Your task to perform on an android device: toggle javascript in the chrome app Image 0: 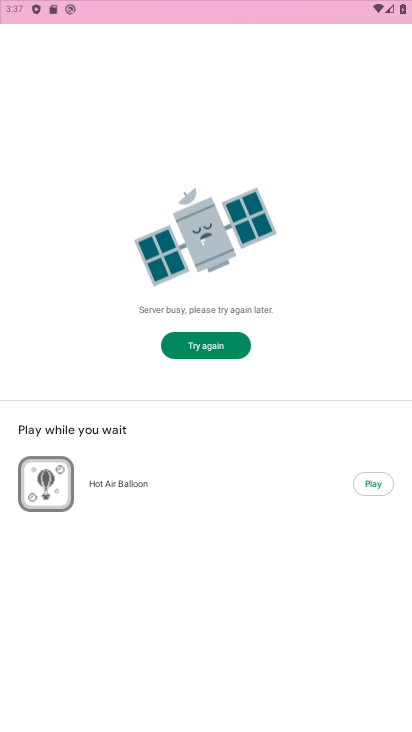
Step 0: click (346, 128)
Your task to perform on an android device: toggle javascript in the chrome app Image 1: 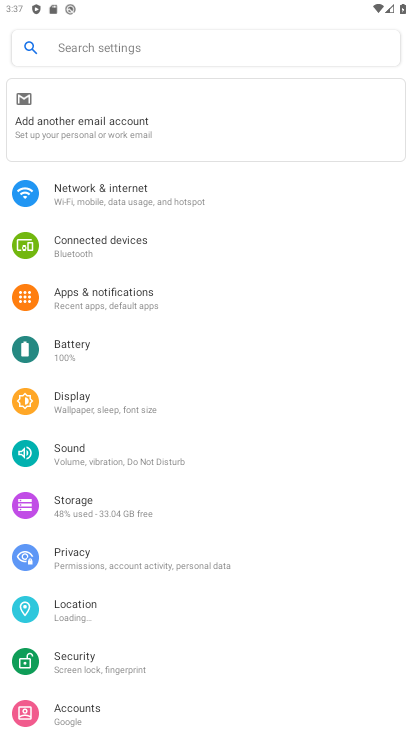
Step 1: press home button
Your task to perform on an android device: toggle javascript in the chrome app Image 2: 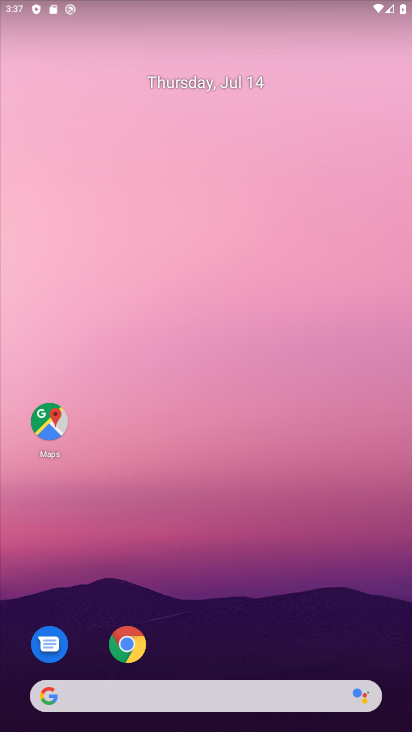
Step 2: drag from (295, 557) to (347, 71)
Your task to perform on an android device: toggle javascript in the chrome app Image 3: 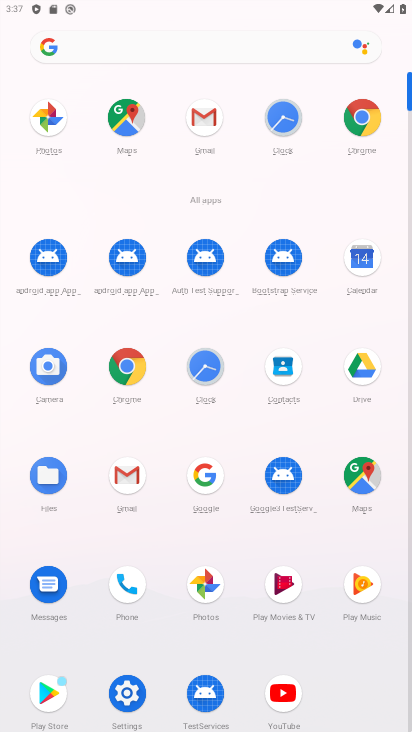
Step 3: click (125, 368)
Your task to perform on an android device: toggle javascript in the chrome app Image 4: 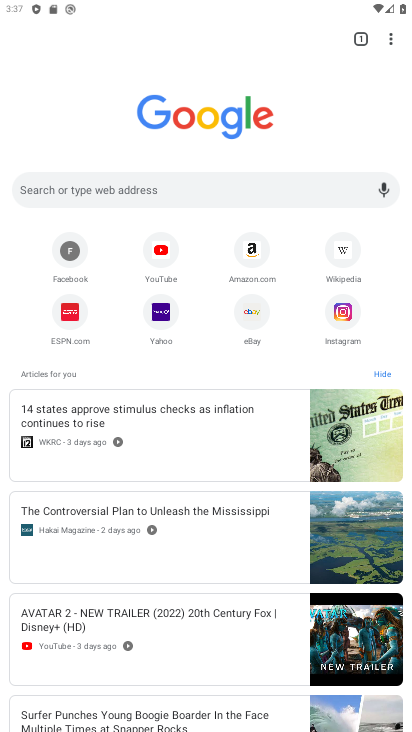
Step 4: drag from (389, 36) to (287, 316)
Your task to perform on an android device: toggle javascript in the chrome app Image 5: 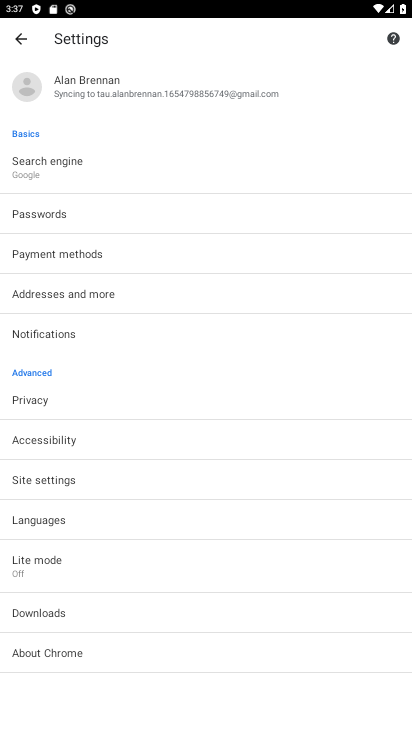
Step 5: click (58, 477)
Your task to perform on an android device: toggle javascript in the chrome app Image 6: 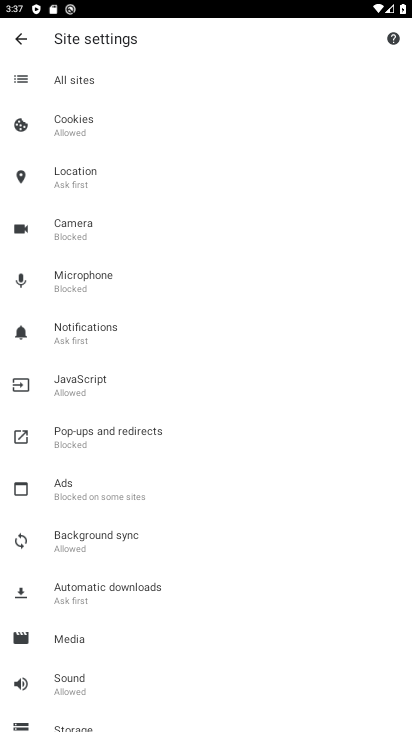
Step 6: click (85, 381)
Your task to perform on an android device: toggle javascript in the chrome app Image 7: 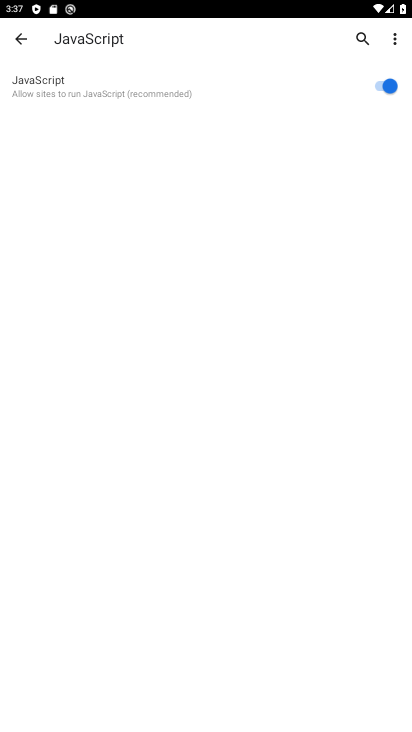
Step 7: click (339, 90)
Your task to perform on an android device: toggle javascript in the chrome app Image 8: 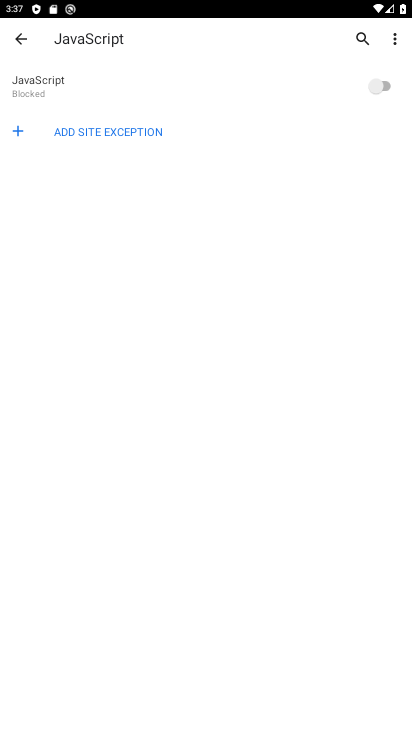
Step 8: task complete